Your task to perform on an android device: Open calendar and show me the second week of next month Image 0: 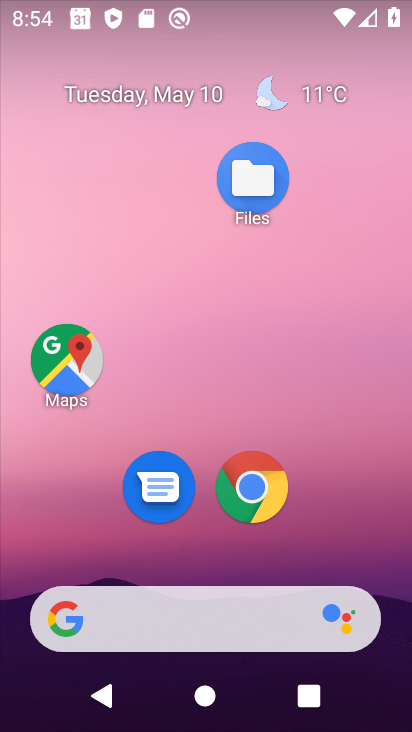
Step 0: drag from (212, 547) to (214, 106)
Your task to perform on an android device: Open calendar and show me the second week of next month Image 1: 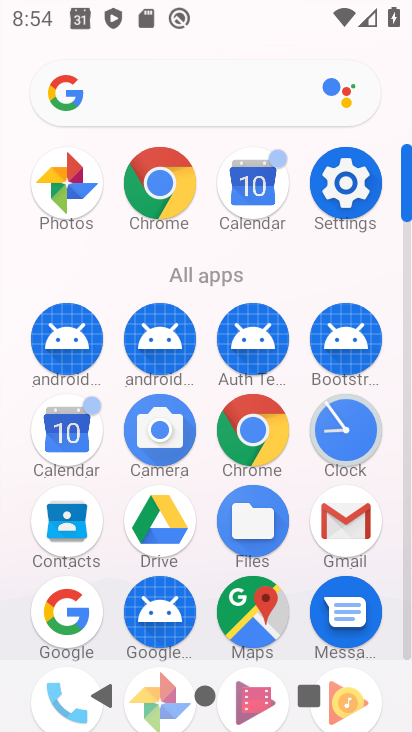
Step 1: click (64, 423)
Your task to perform on an android device: Open calendar and show me the second week of next month Image 2: 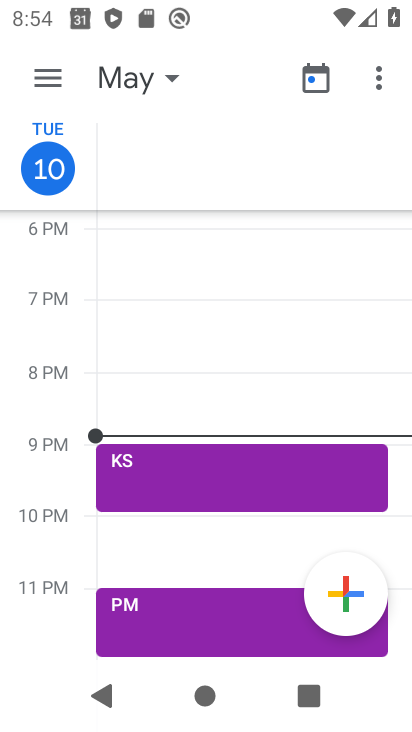
Step 2: click (166, 84)
Your task to perform on an android device: Open calendar and show me the second week of next month Image 3: 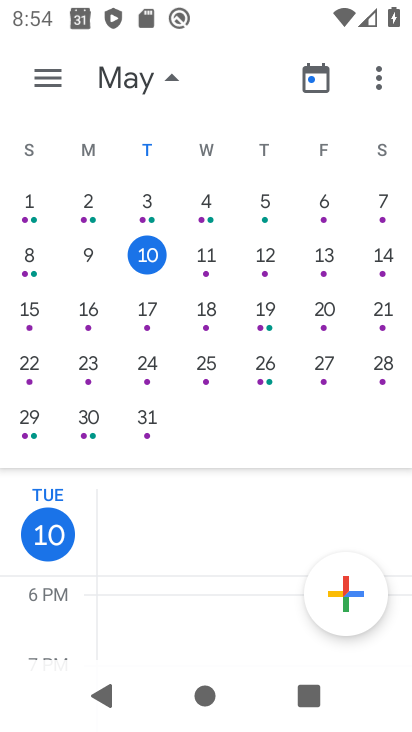
Step 3: drag from (373, 434) to (18, 392)
Your task to perform on an android device: Open calendar and show me the second week of next month Image 4: 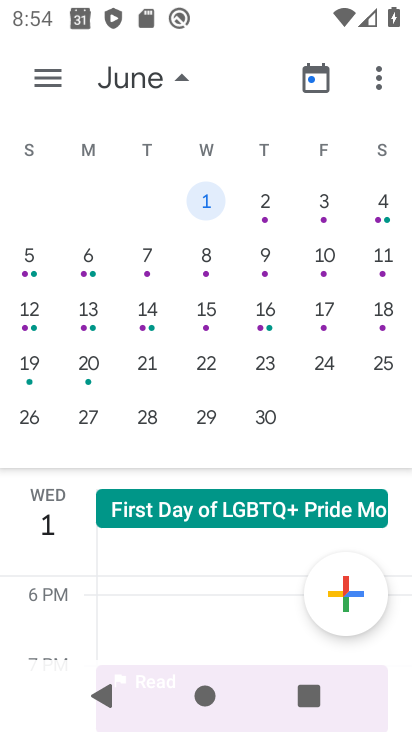
Step 4: click (209, 261)
Your task to perform on an android device: Open calendar and show me the second week of next month Image 5: 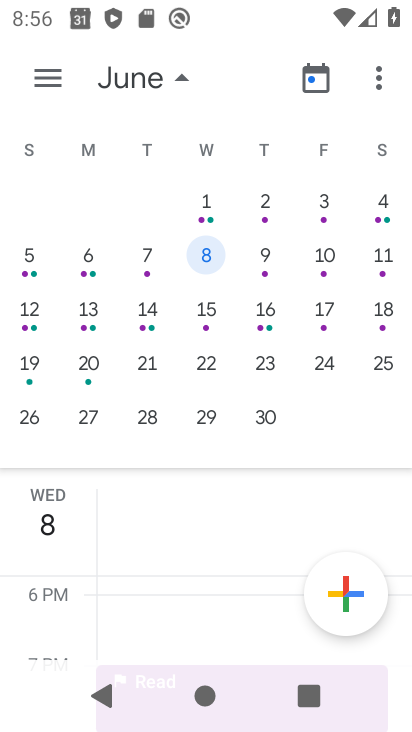
Step 5: task complete